Your task to perform on an android device: turn off picture-in-picture Image 0: 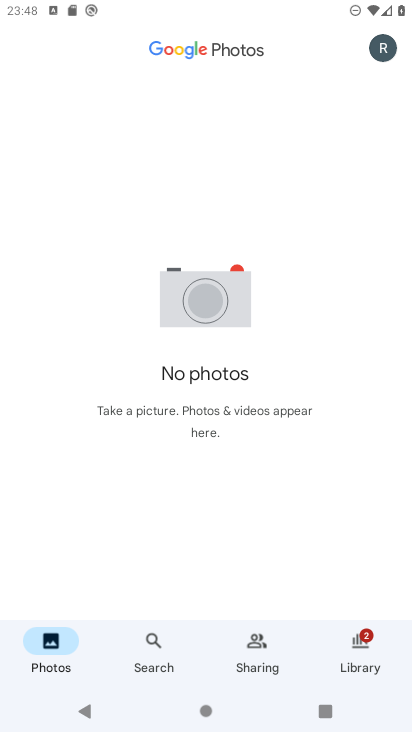
Step 0: press home button
Your task to perform on an android device: turn off picture-in-picture Image 1: 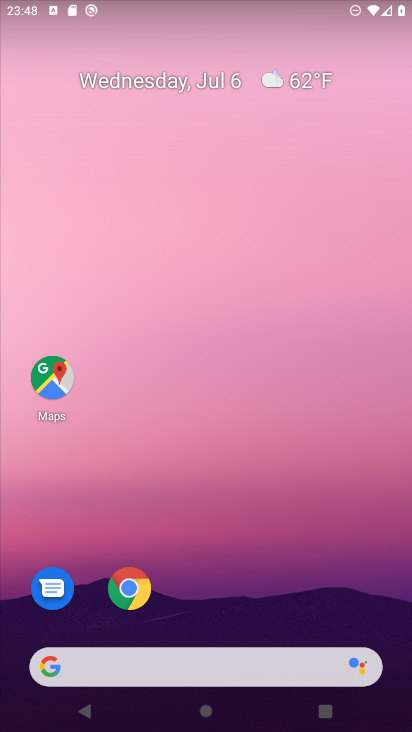
Step 1: drag from (388, 615) to (334, 68)
Your task to perform on an android device: turn off picture-in-picture Image 2: 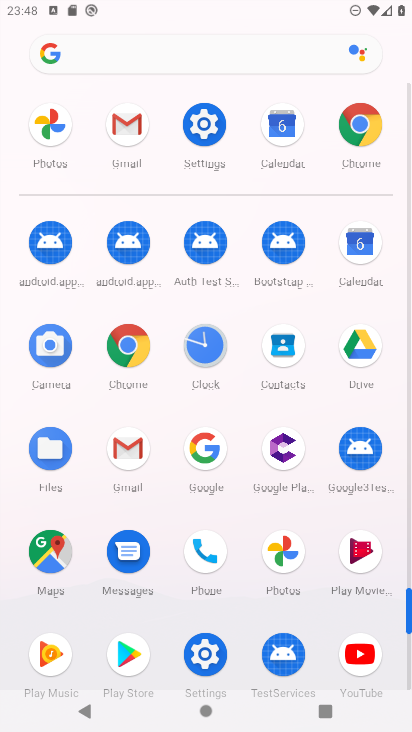
Step 2: click (202, 653)
Your task to perform on an android device: turn off picture-in-picture Image 3: 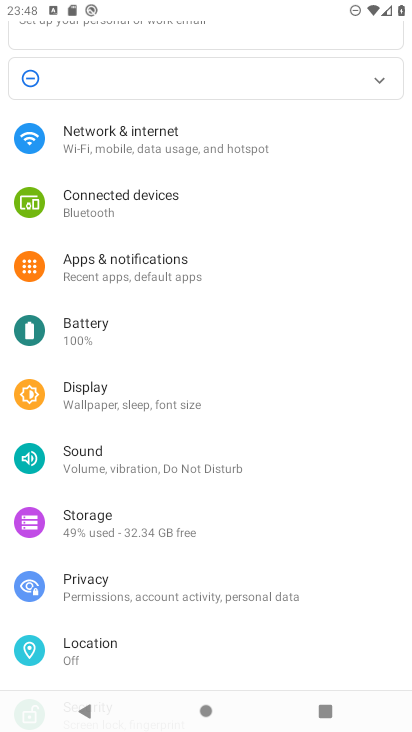
Step 3: click (115, 271)
Your task to perform on an android device: turn off picture-in-picture Image 4: 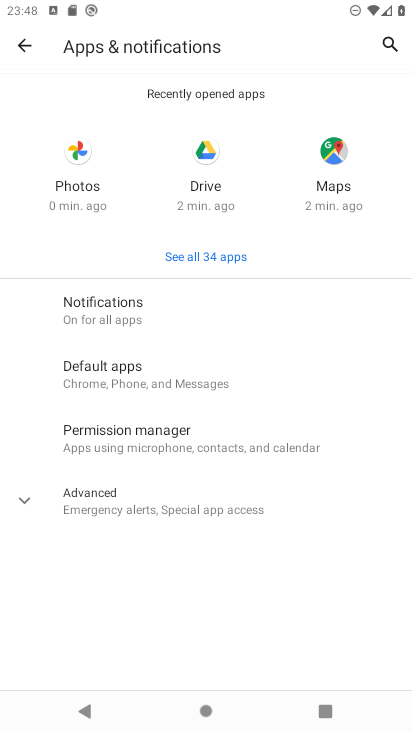
Step 4: click (19, 496)
Your task to perform on an android device: turn off picture-in-picture Image 5: 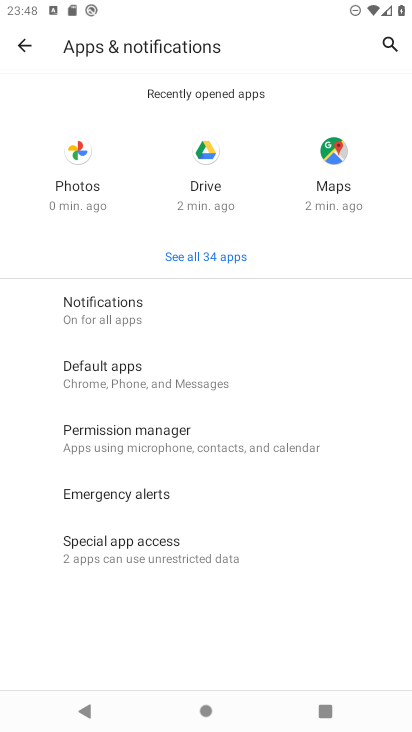
Step 5: click (119, 563)
Your task to perform on an android device: turn off picture-in-picture Image 6: 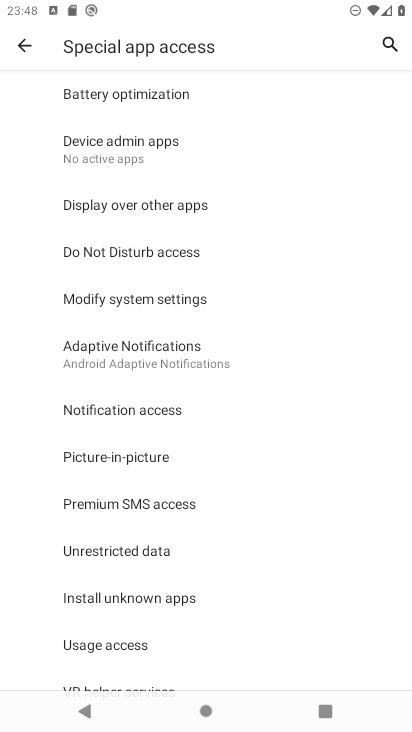
Step 6: click (109, 460)
Your task to perform on an android device: turn off picture-in-picture Image 7: 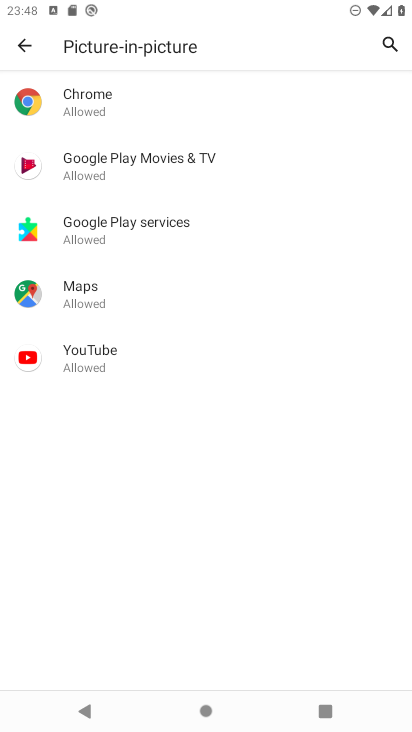
Step 7: drag from (211, 212) to (176, 402)
Your task to perform on an android device: turn off picture-in-picture Image 8: 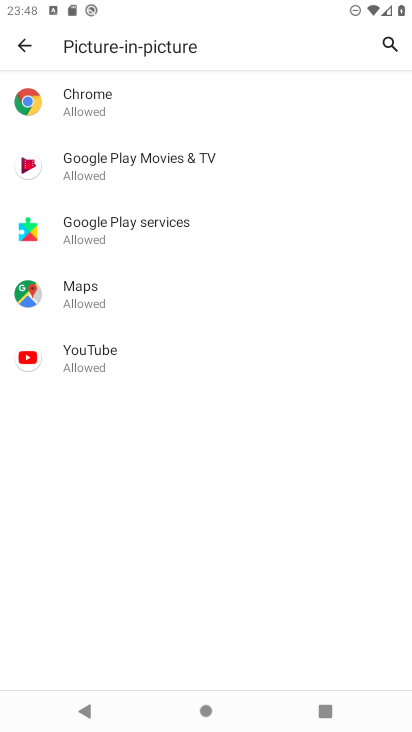
Step 8: click (118, 351)
Your task to perform on an android device: turn off picture-in-picture Image 9: 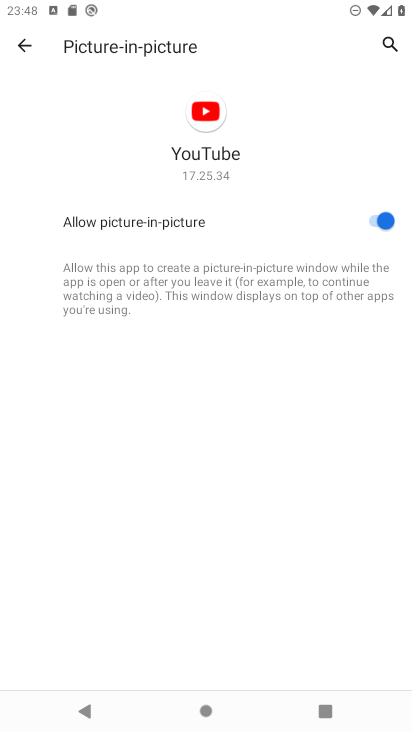
Step 9: click (373, 218)
Your task to perform on an android device: turn off picture-in-picture Image 10: 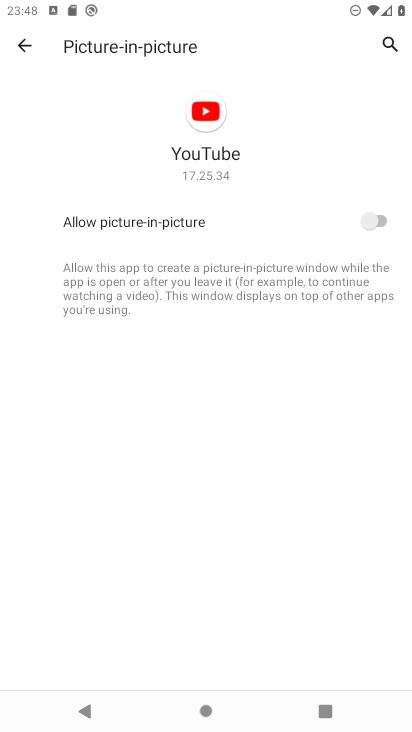
Step 10: task complete